Your task to perform on an android device: add a contact in the contacts app Image 0: 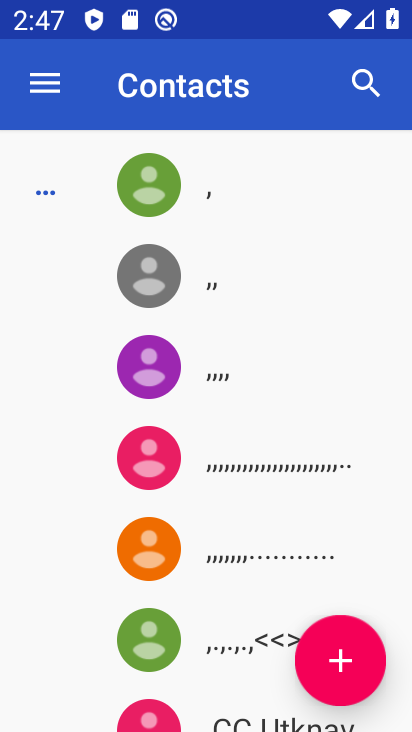
Step 0: press home button
Your task to perform on an android device: add a contact in the contacts app Image 1: 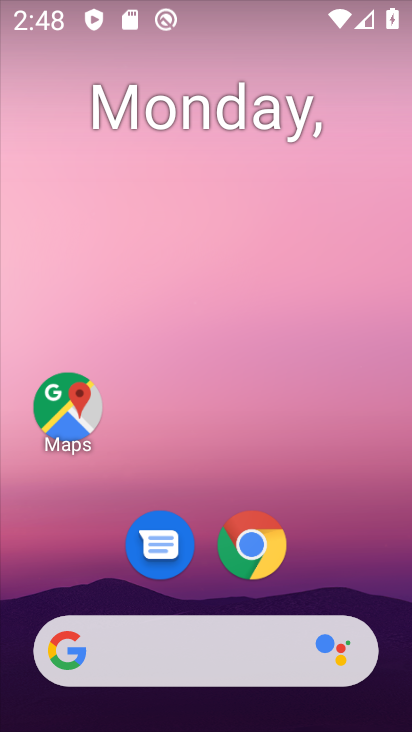
Step 1: drag from (218, 550) to (266, 99)
Your task to perform on an android device: add a contact in the contacts app Image 2: 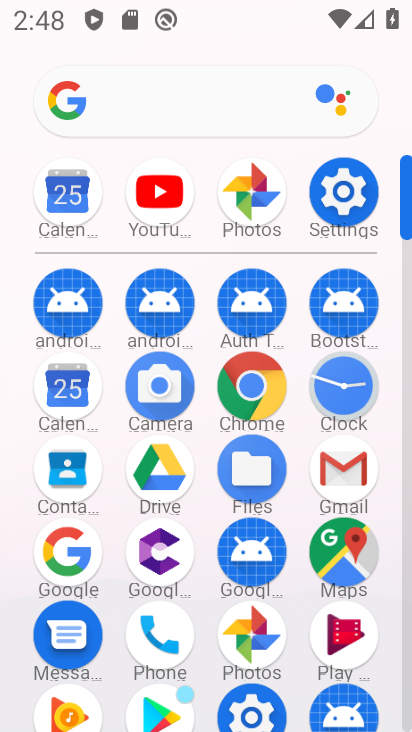
Step 2: click (61, 466)
Your task to perform on an android device: add a contact in the contacts app Image 3: 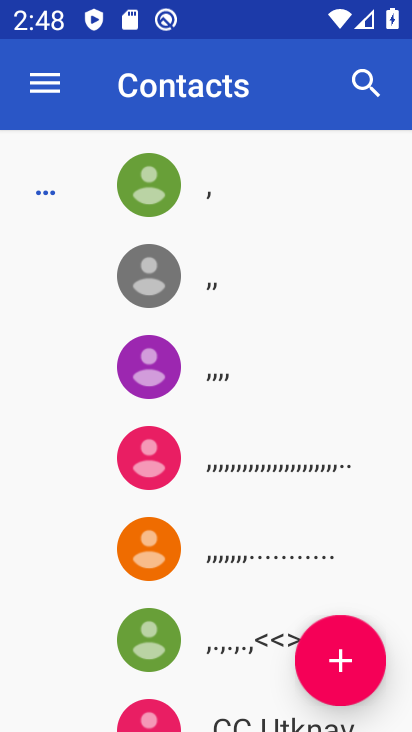
Step 3: click (345, 660)
Your task to perform on an android device: add a contact in the contacts app Image 4: 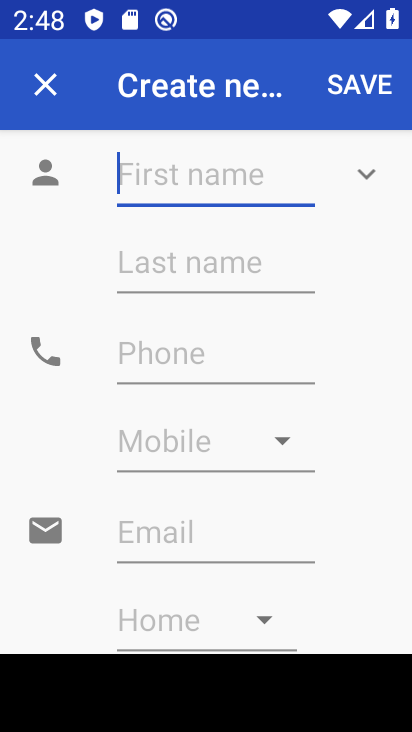
Step 4: click (154, 171)
Your task to perform on an android device: add a contact in the contacts app Image 5: 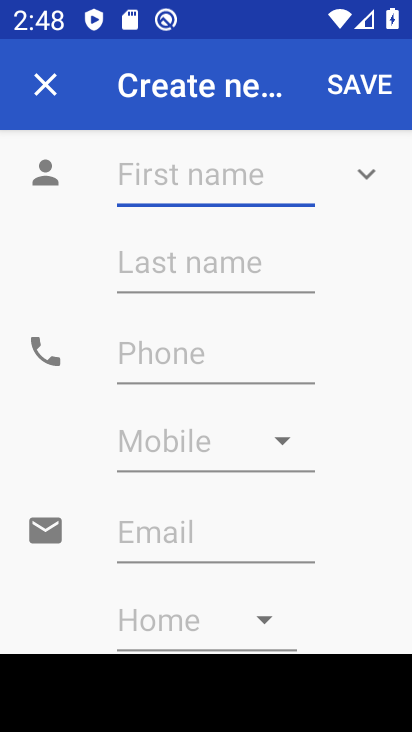
Step 5: type "fvgvg"
Your task to perform on an android device: add a contact in the contacts app Image 6: 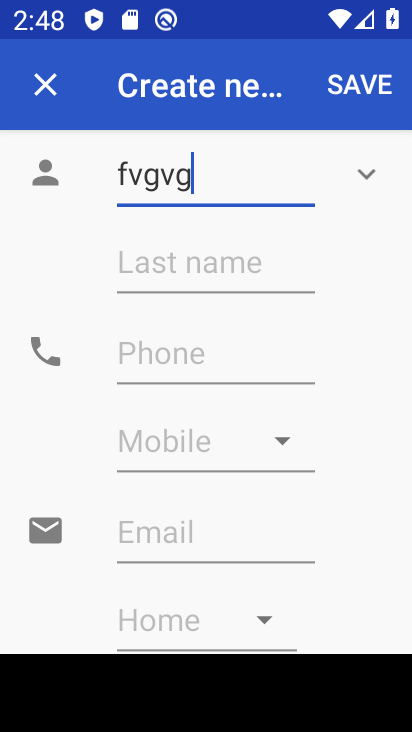
Step 6: click (156, 260)
Your task to perform on an android device: add a contact in the contacts app Image 7: 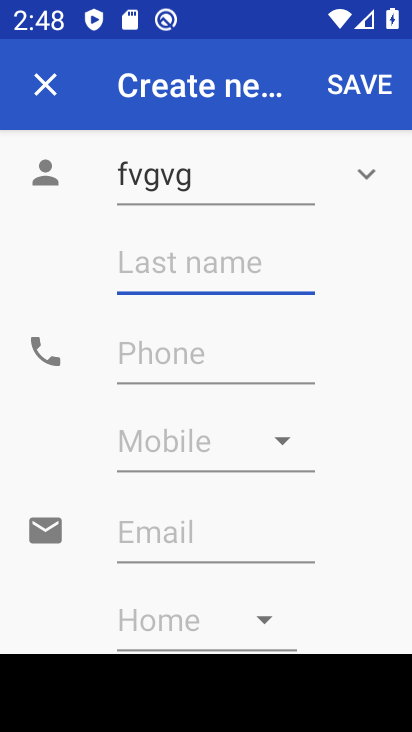
Step 7: type "577"
Your task to perform on an android device: add a contact in the contacts app Image 8: 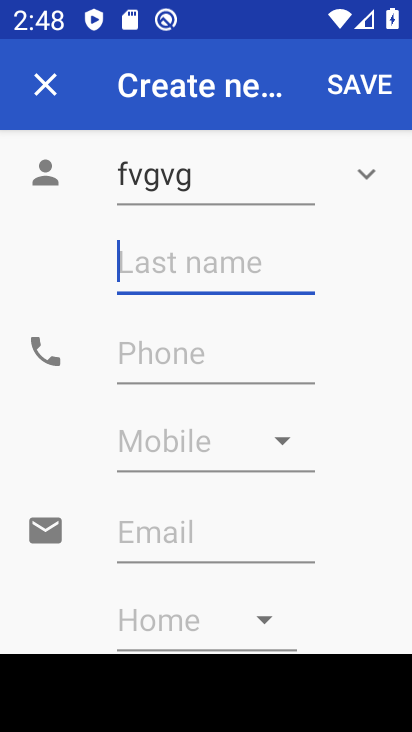
Step 8: click (206, 358)
Your task to perform on an android device: add a contact in the contacts app Image 9: 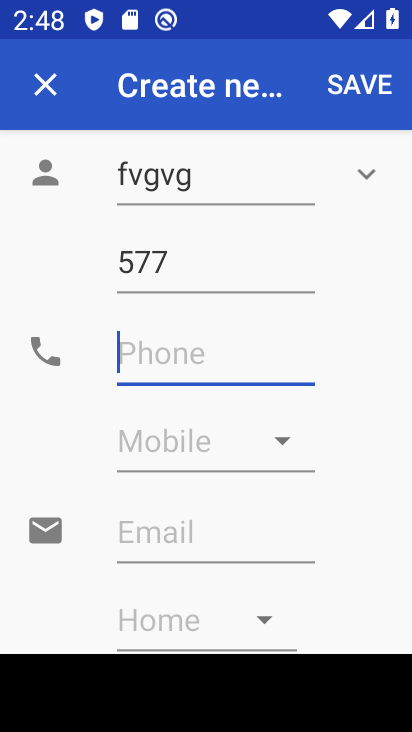
Step 9: click (176, 251)
Your task to perform on an android device: add a contact in the contacts app Image 10: 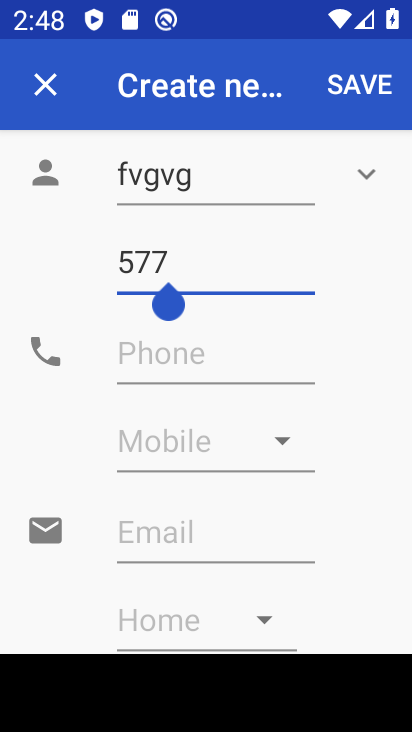
Step 10: click (182, 362)
Your task to perform on an android device: add a contact in the contacts app Image 11: 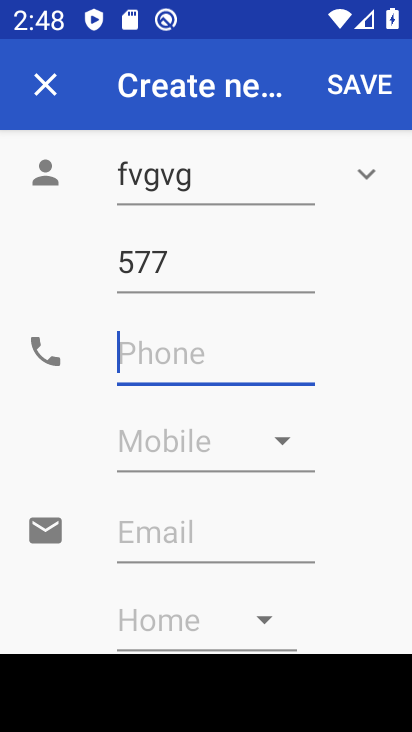
Step 11: type "7677"
Your task to perform on an android device: add a contact in the contacts app Image 12: 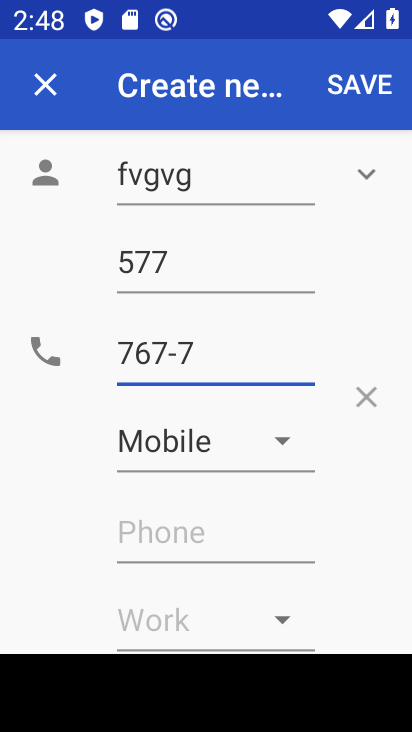
Step 12: click (353, 63)
Your task to perform on an android device: add a contact in the contacts app Image 13: 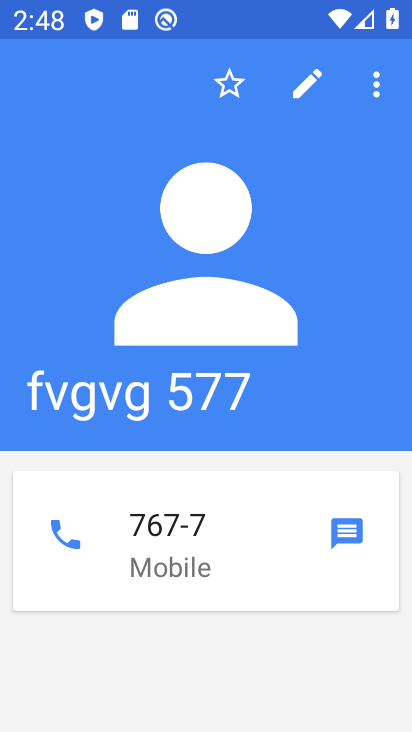
Step 13: task complete